Your task to perform on an android device: find photos in the google photos app Image 0: 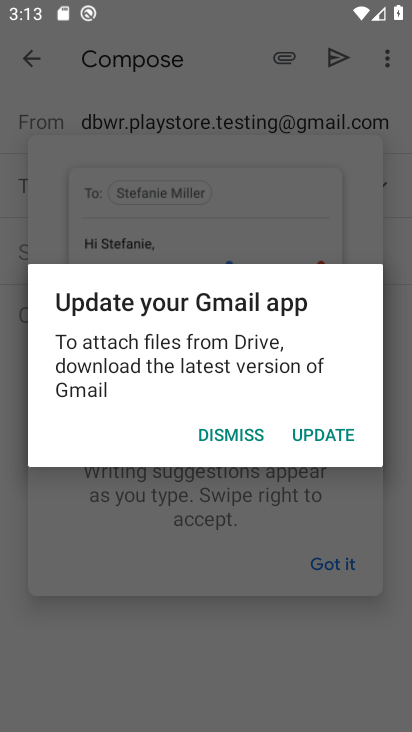
Step 0: click (213, 434)
Your task to perform on an android device: find photos in the google photos app Image 1: 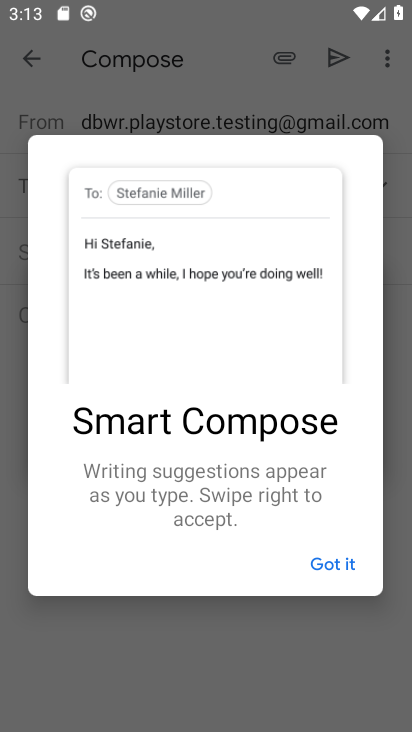
Step 1: press home button
Your task to perform on an android device: find photos in the google photos app Image 2: 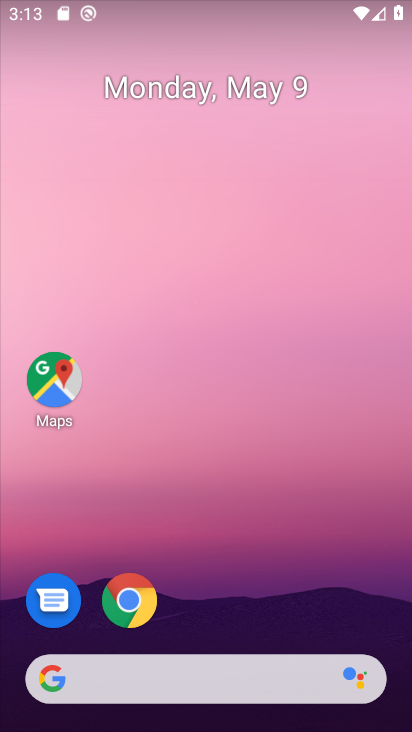
Step 2: drag from (287, 566) to (342, 99)
Your task to perform on an android device: find photos in the google photos app Image 3: 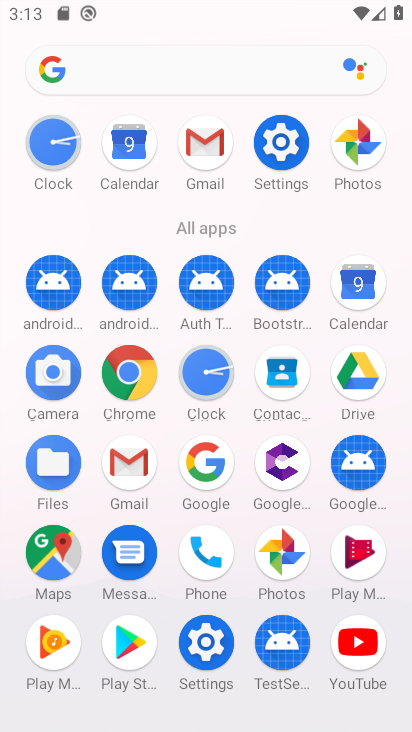
Step 3: click (133, 463)
Your task to perform on an android device: find photos in the google photos app Image 4: 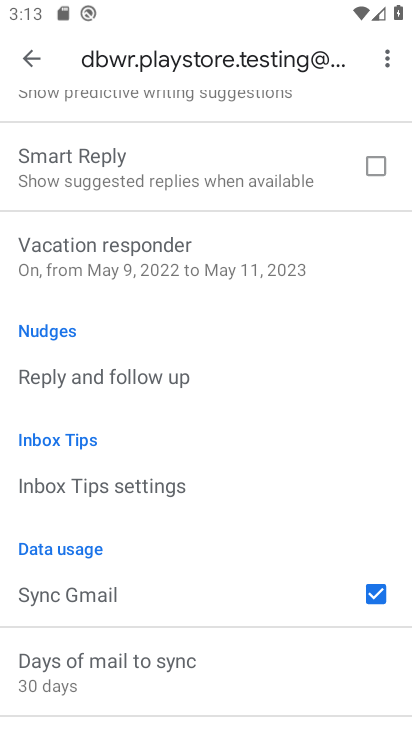
Step 4: click (38, 55)
Your task to perform on an android device: find photos in the google photos app Image 5: 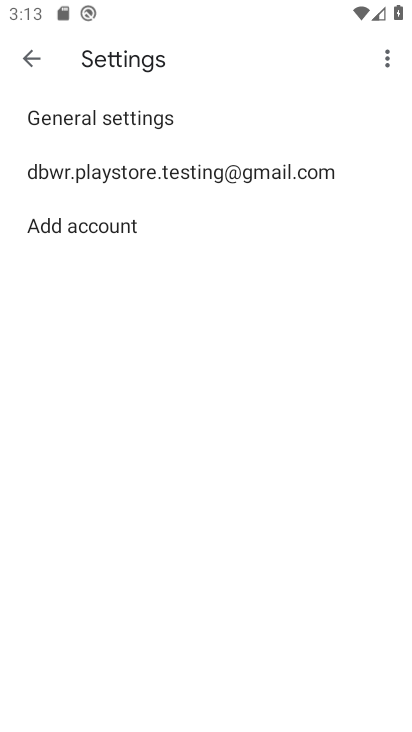
Step 5: click (38, 61)
Your task to perform on an android device: find photos in the google photos app Image 6: 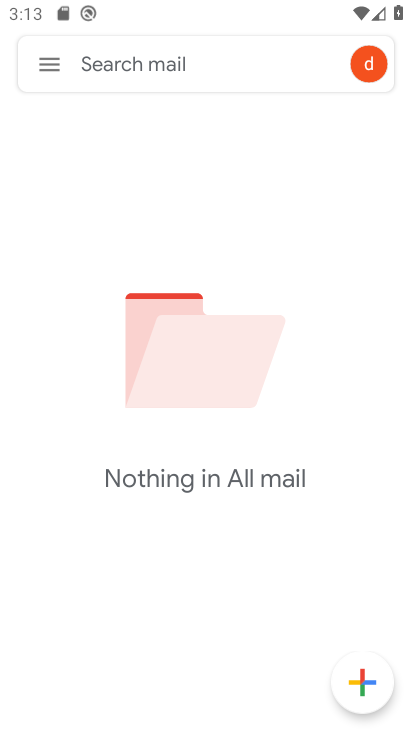
Step 6: press home button
Your task to perform on an android device: find photos in the google photos app Image 7: 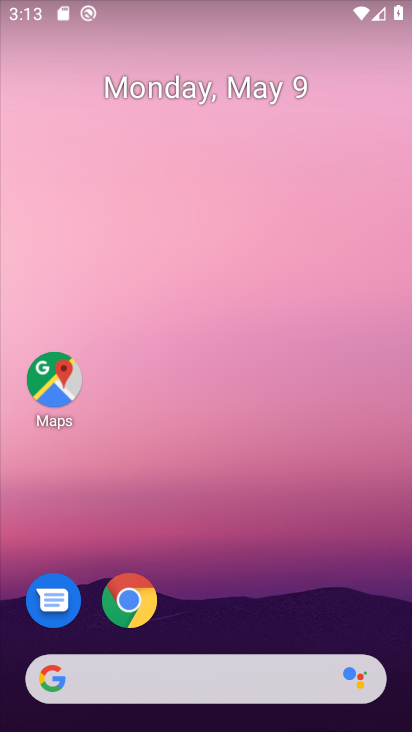
Step 7: drag from (340, 515) to (331, 134)
Your task to perform on an android device: find photos in the google photos app Image 8: 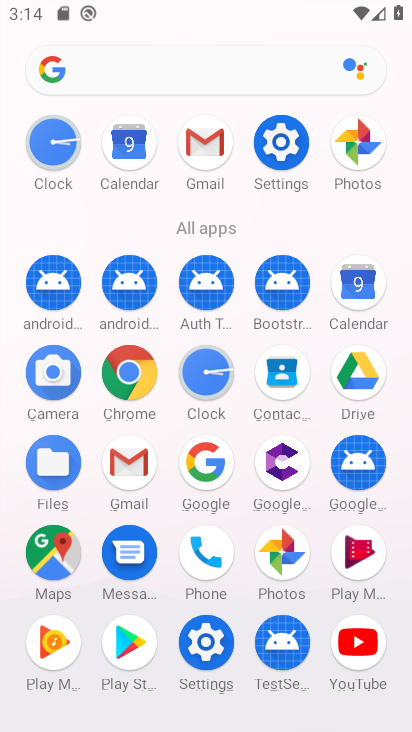
Step 8: click (300, 560)
Your task to perform on an android device: find photos in the google photos app Image 9: 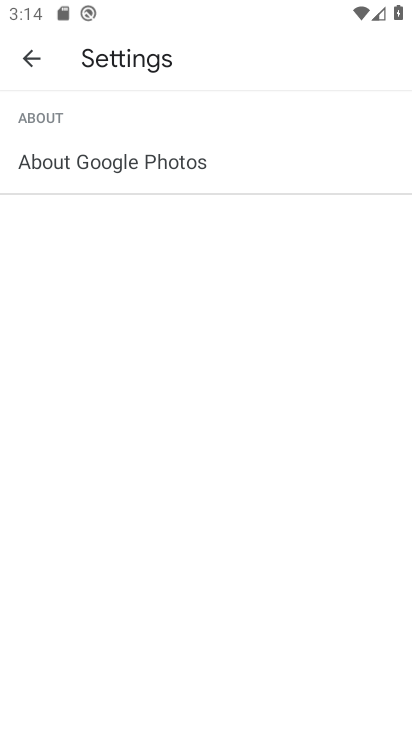
Step 9: click (47, 66)
Your task to perform on an android device: find photos in the google photos app Image 10: 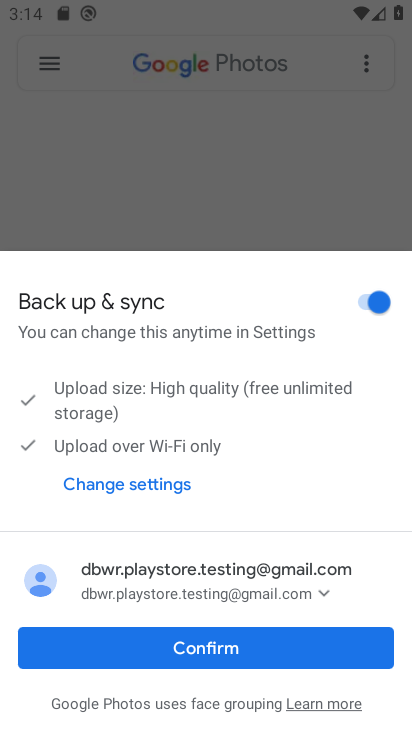
Step 10: click (261, 647)
Your task to perform on an android device: find photos in the google photos app Image 11: 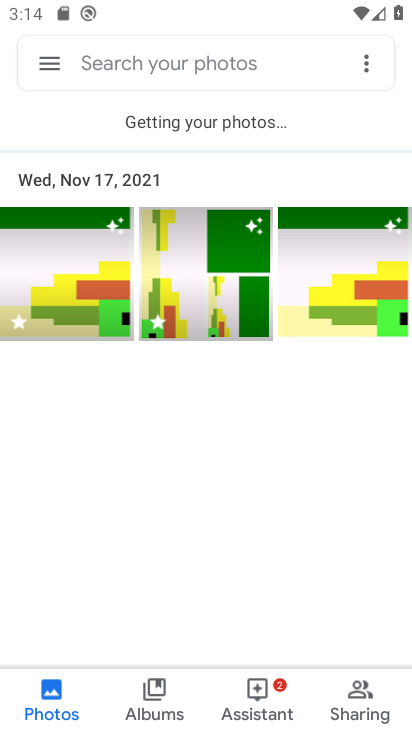
Step 11: click (103, 293)
Your task to perform on an android device: find photos in the google photos app Image 12: 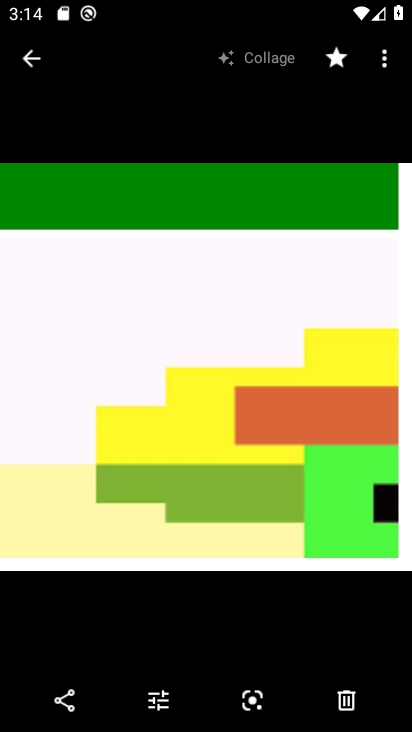
Step 12: task complete